Your task to perform on an android device: Search for seafood restaurants on Google Maps Image 0: 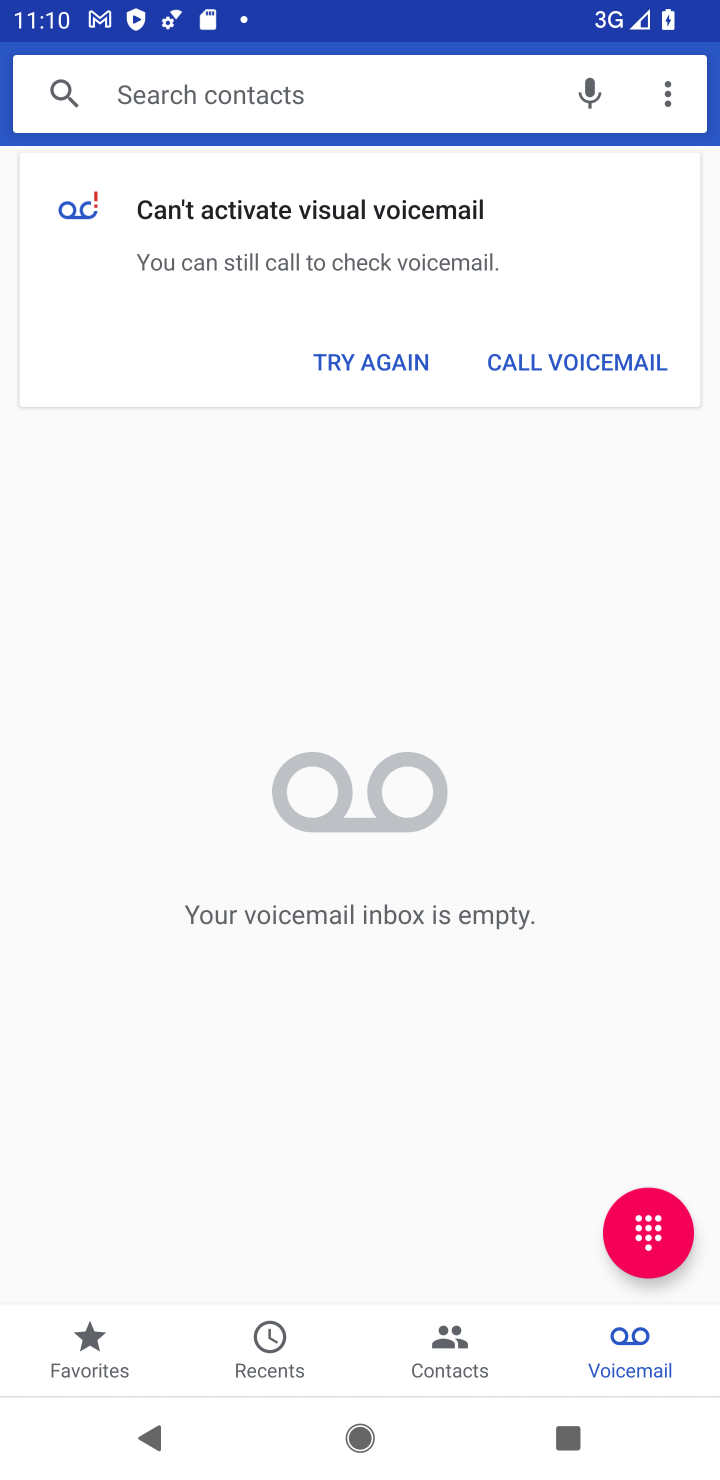
Step 0: press home button
Your task to perform on an android device: Search for seafood restaurants on Google Maps Image 1: 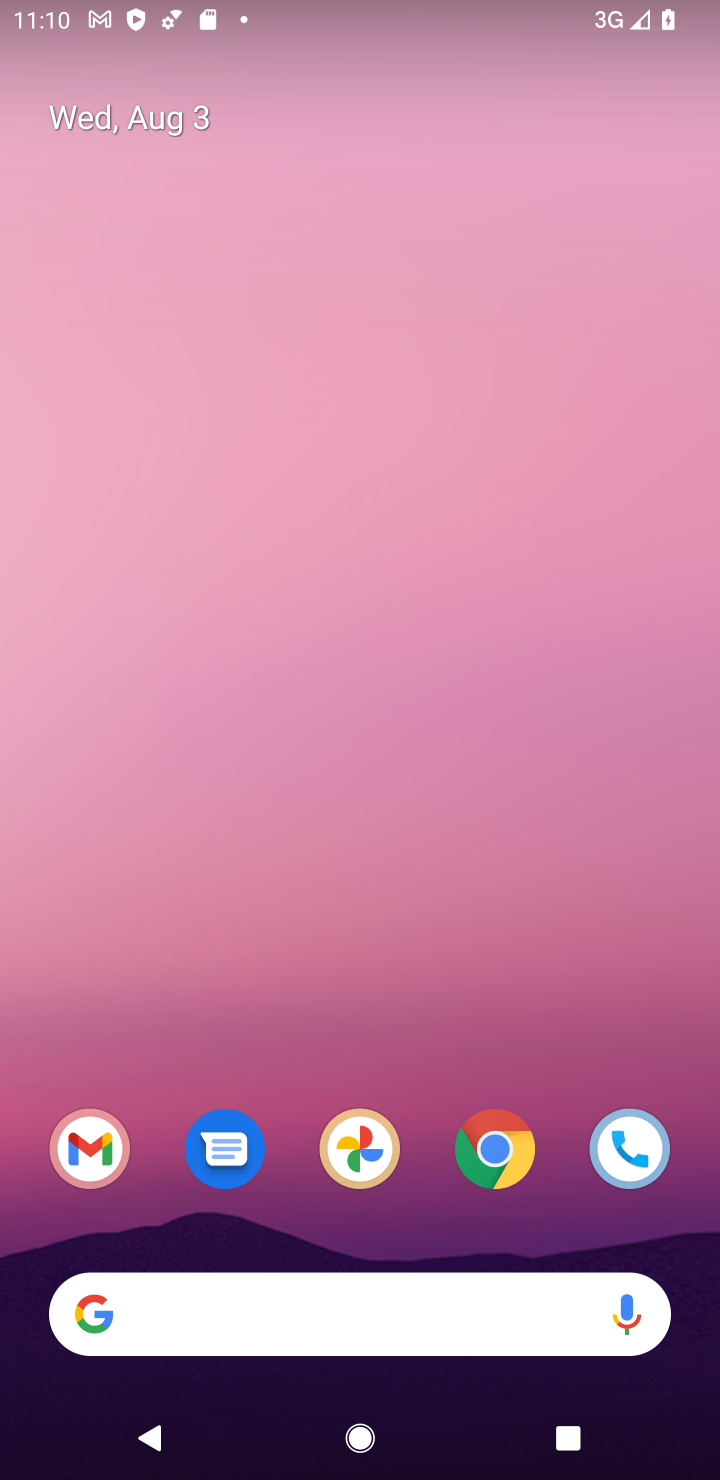
Step 1: drag from (470, 995) to (417, 71)
Your task to perform on an android device: Search for seafood restaurants on Google Maps Image 2: 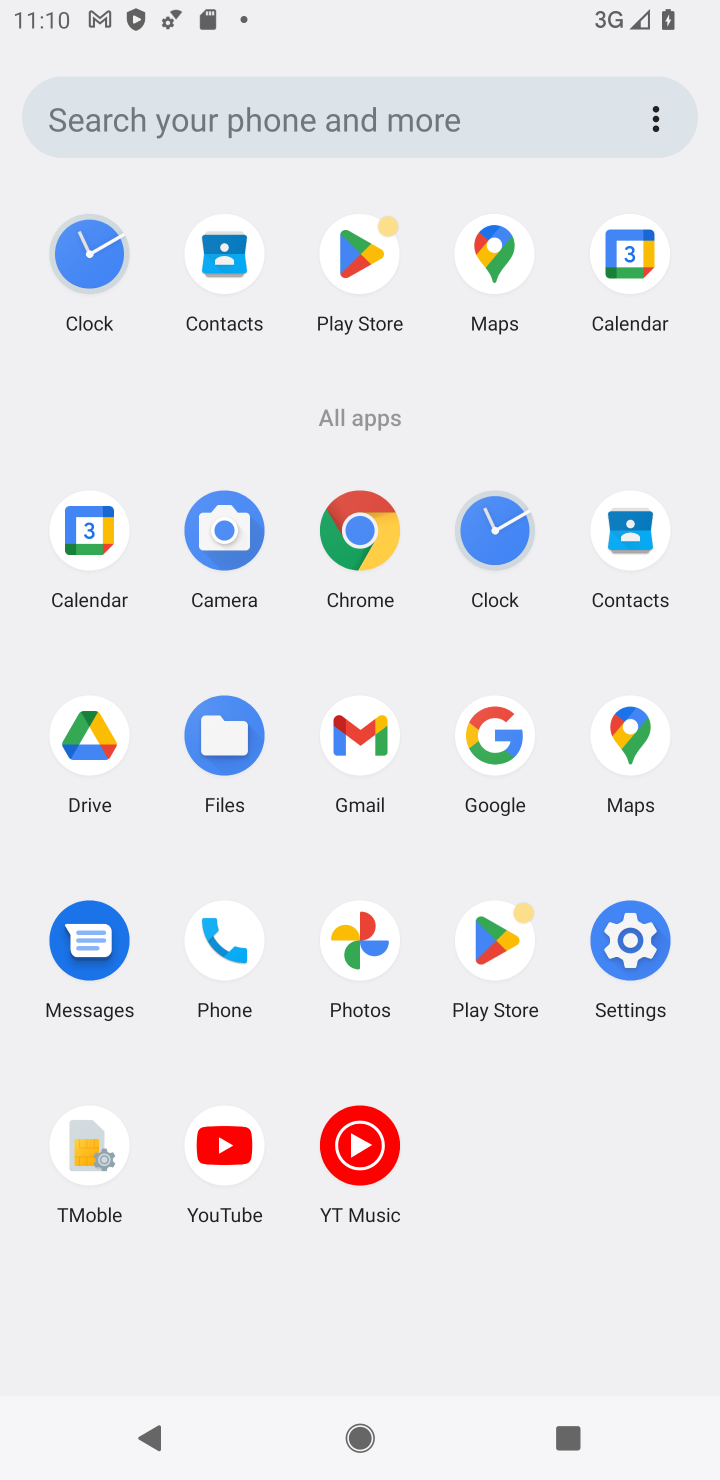
Step 2: click (651, 736)
Your task to perform on an android device: Search for seafood restaurants on Google Maps Image 3: 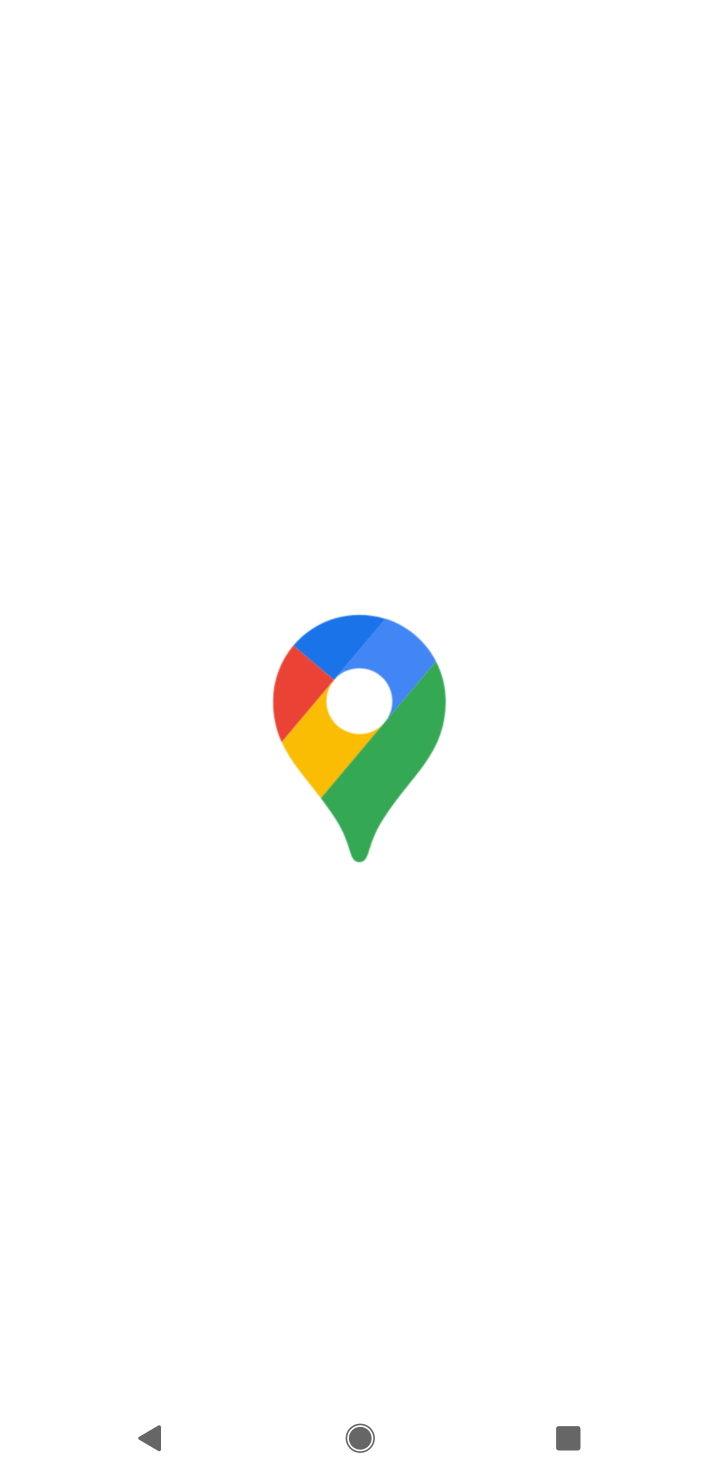
Step 3: task complete